Your task to perform on an android device: change alarm snooze length Image 0: 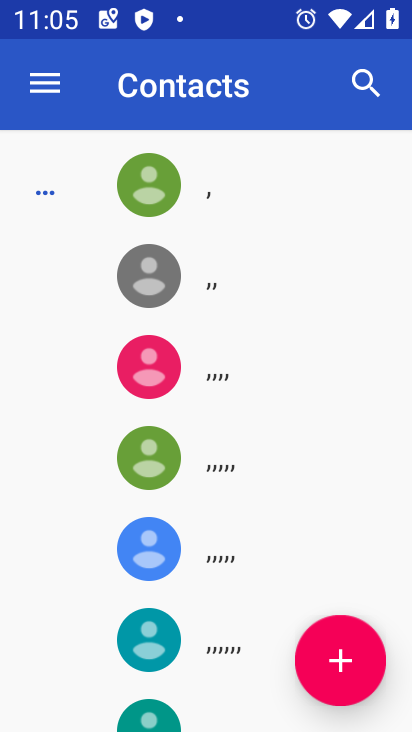
Step 0: press home button
Your task to perform on an android device: change alarm snooze length Image 1: 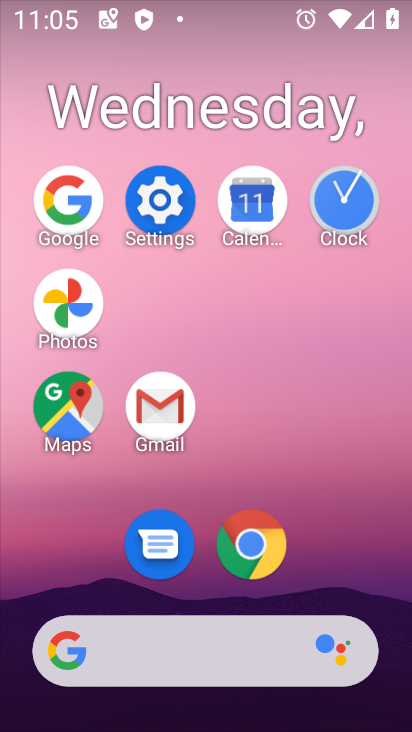
Step 1: click (357, 194)
Your task to perform on an android device: change alarm snooze length Image 2: 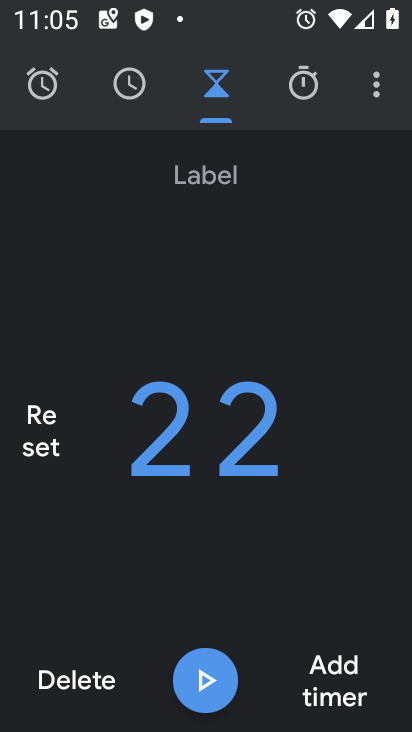
Step 2: click (364, 103)
Your task to perform on an android device: change alarm snooze length Image 3: 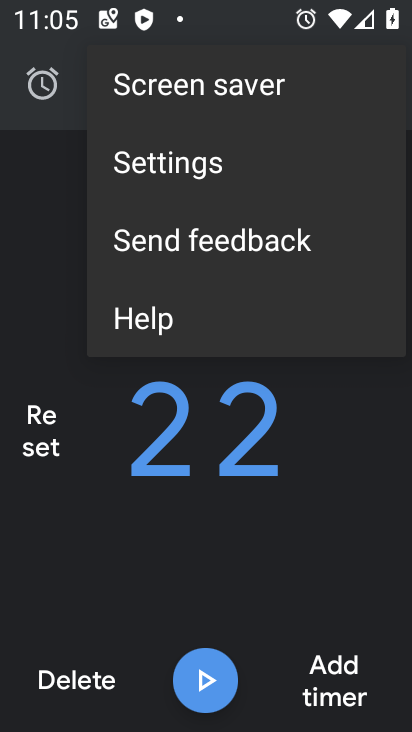
Step 3: click (187, 164)
Your task to perform on an android device: change alarm snooze length Image 4: 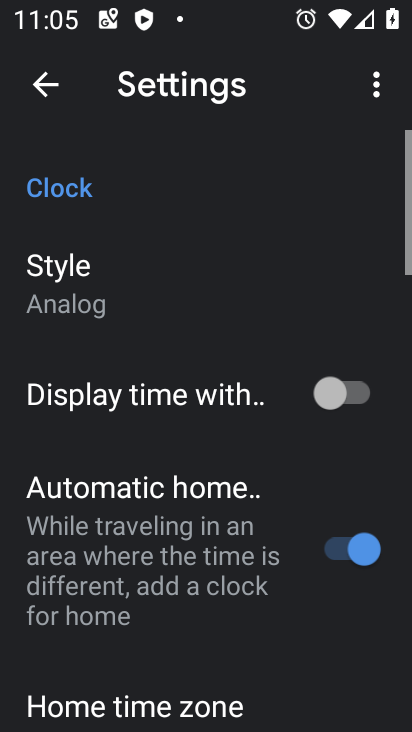
Step 4: drag from (134, 583) to (185, 179)
Your task to perform on an android device: change alarm snooze length Image 5: 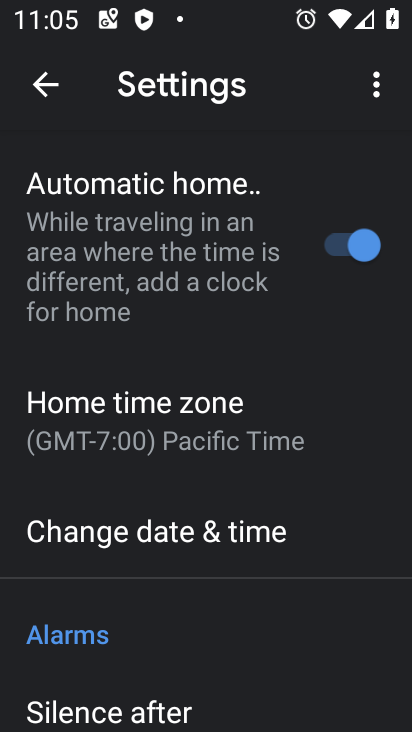
Step 5: drag from (151, 601) to (194, 240)
Your task to perform on an android device: change alarm snooze length Image 6: 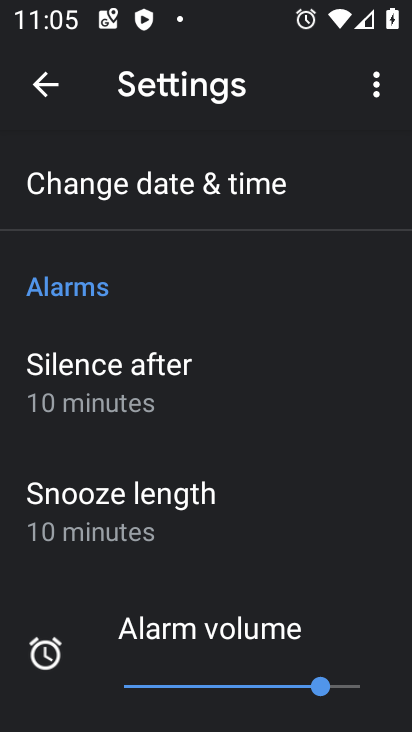
Step 6: drag from (202, 618) to (233, 320)
Your task to perform on an android device: change alarm snooze length Image 7: 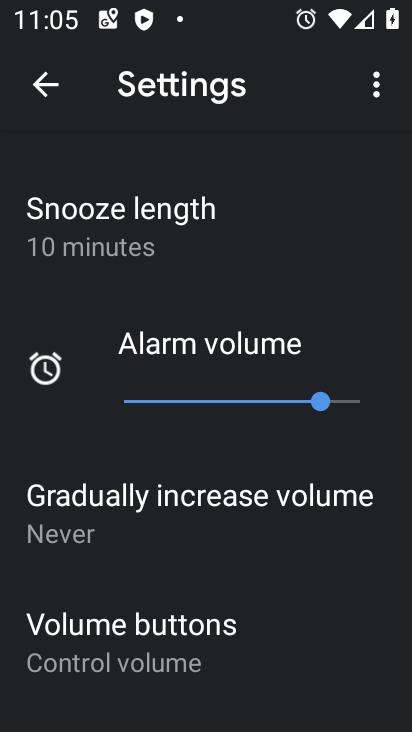
Step 7: click (191, 252)
Your task to perform on an android device: change alarm snooze length Image 8: 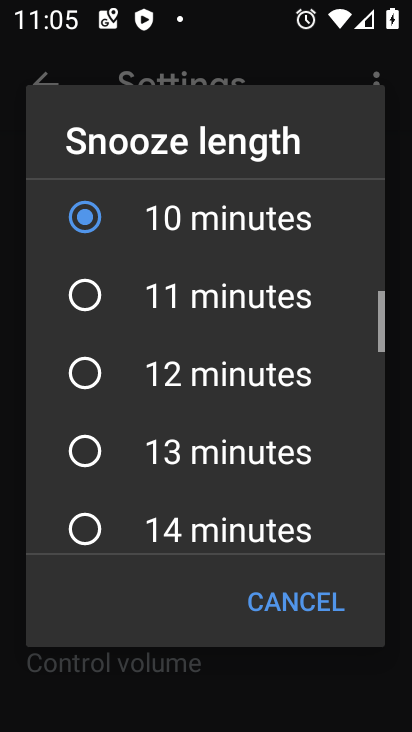
Step 8: click (221, 303)
Your task to perform on an android device: change alarm snooze length Image 9: 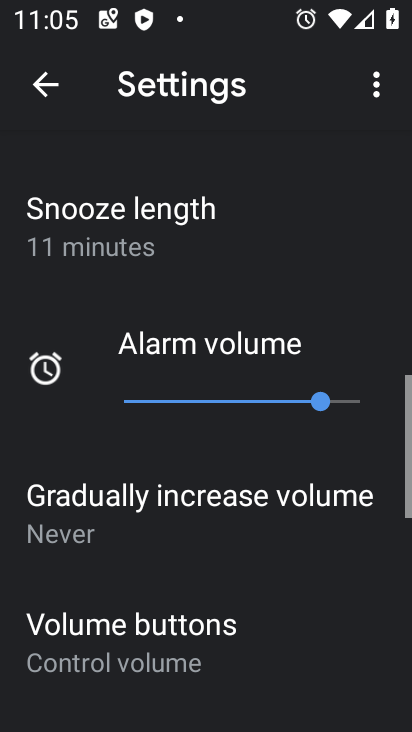
Step 9: task complete